Your task to perform on an android device: Show me productivity apps on the Play Store Image 0: 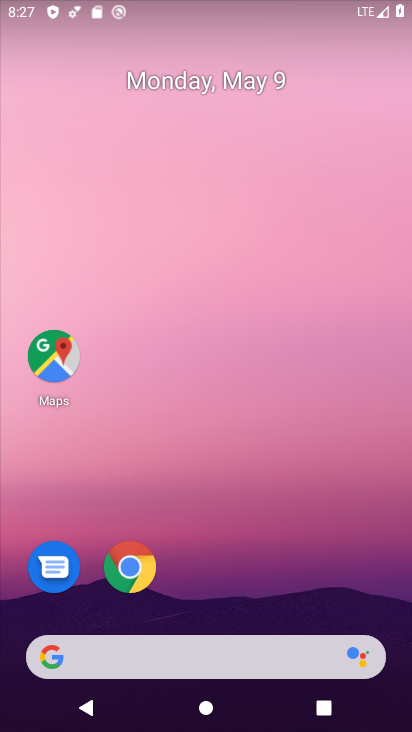
Step 0: drag from (230, 543) to (165, 174)
Your task to perform on an android device: Show me productivity apps on the Play Store Image 1: 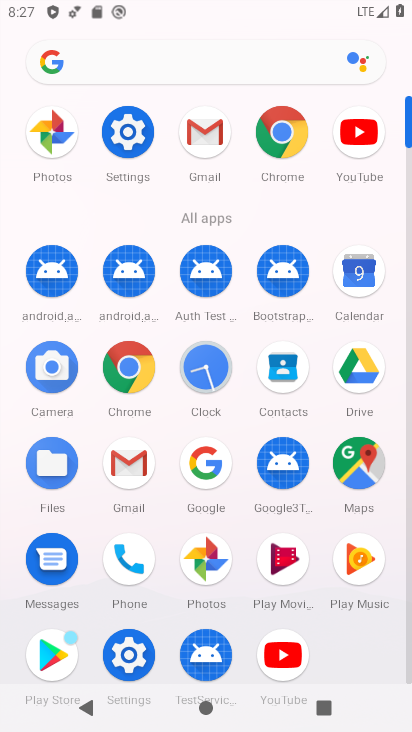
Step 1: click (45, 661)
Your task to perform on an android device: Show me productivity apps on the Play Store Image 2: 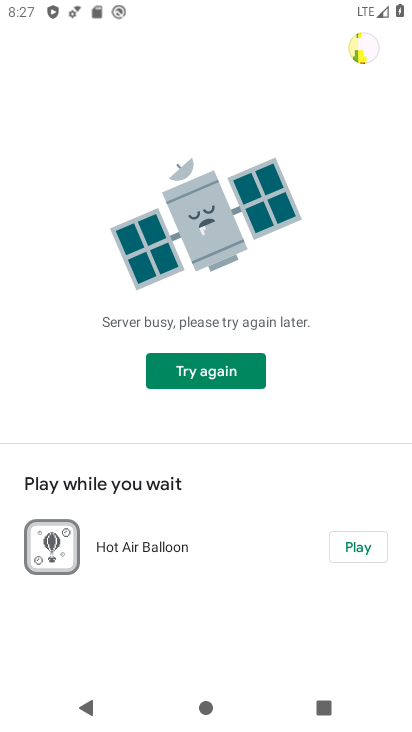
Step 2: click (232, 384)
Your task to perform on an android device: Show me productivity apps on the Play Store Image 3: 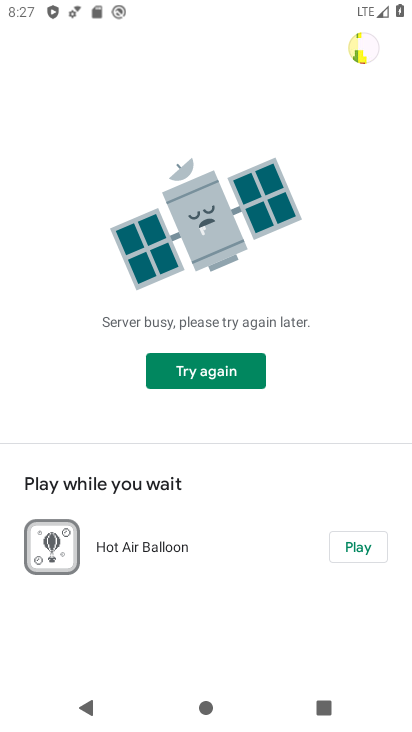
Step 3: click (232, 384)
Your task to perform on an android device: Show me productivity apps on the Play Store Image 4: 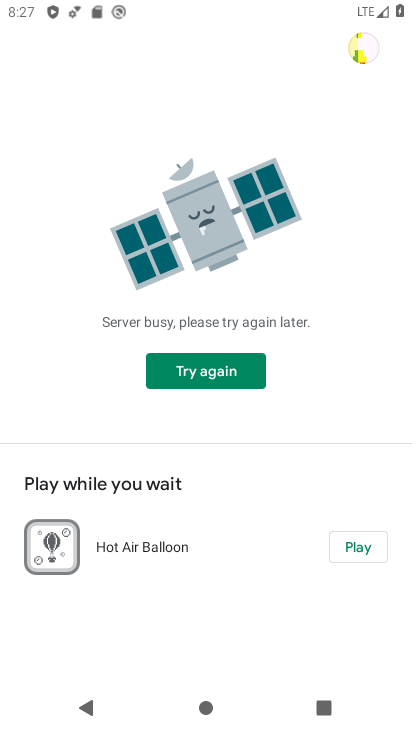
Step 4: task complete